Your task to perform on an android device: uninstall "Duolingo: language lessons" Image 0: 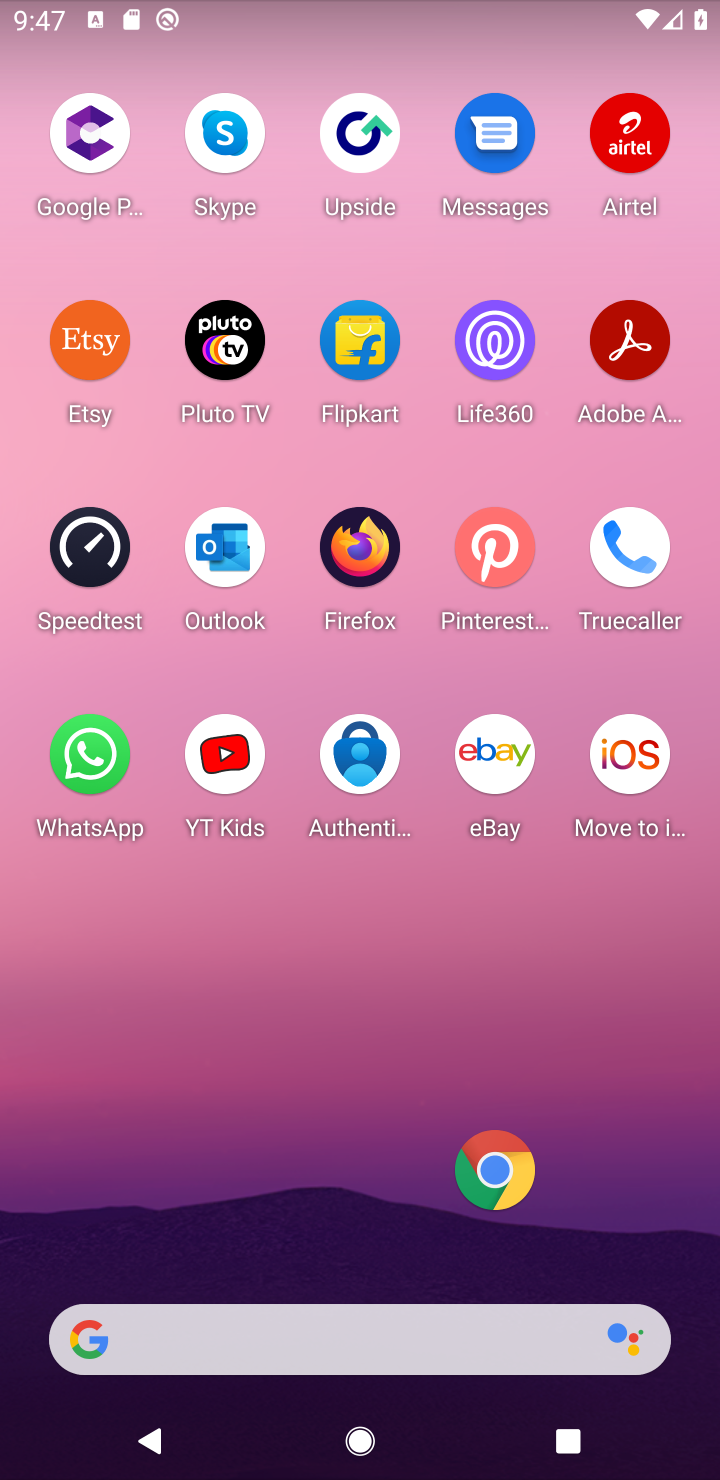
Step 0: drag from (430, 518) to (560, 71)
Your task to perform on an android device: uninstall "Duolingo: language lessons" Image 1: 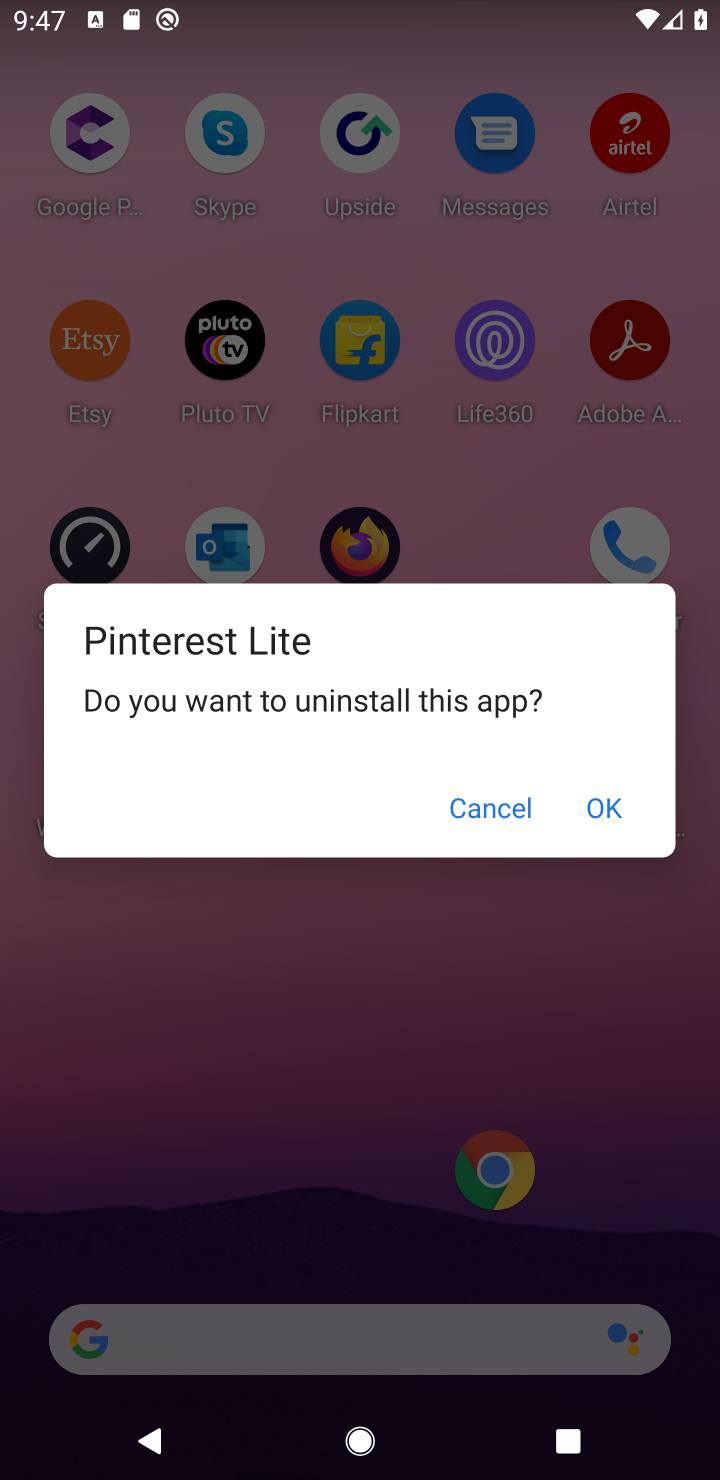
Step 1: click (431, 815)
Your task to perform on an android device: uninstall "Duolingo: language lessons" Image 2: 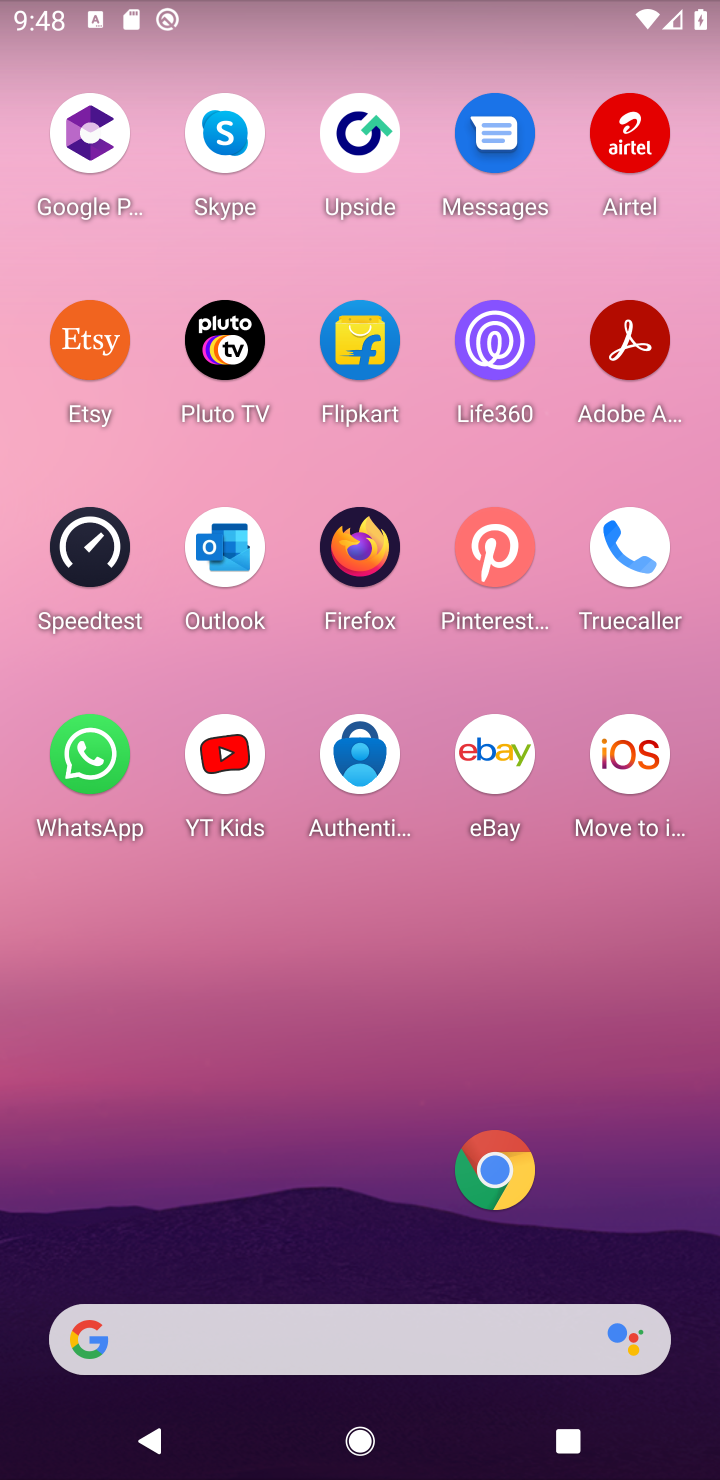
Step 2: drag from (311, 852) to (408, 15)
Your task to perform on an android device: uninstall "Duolingo: language lessons" Image 3: 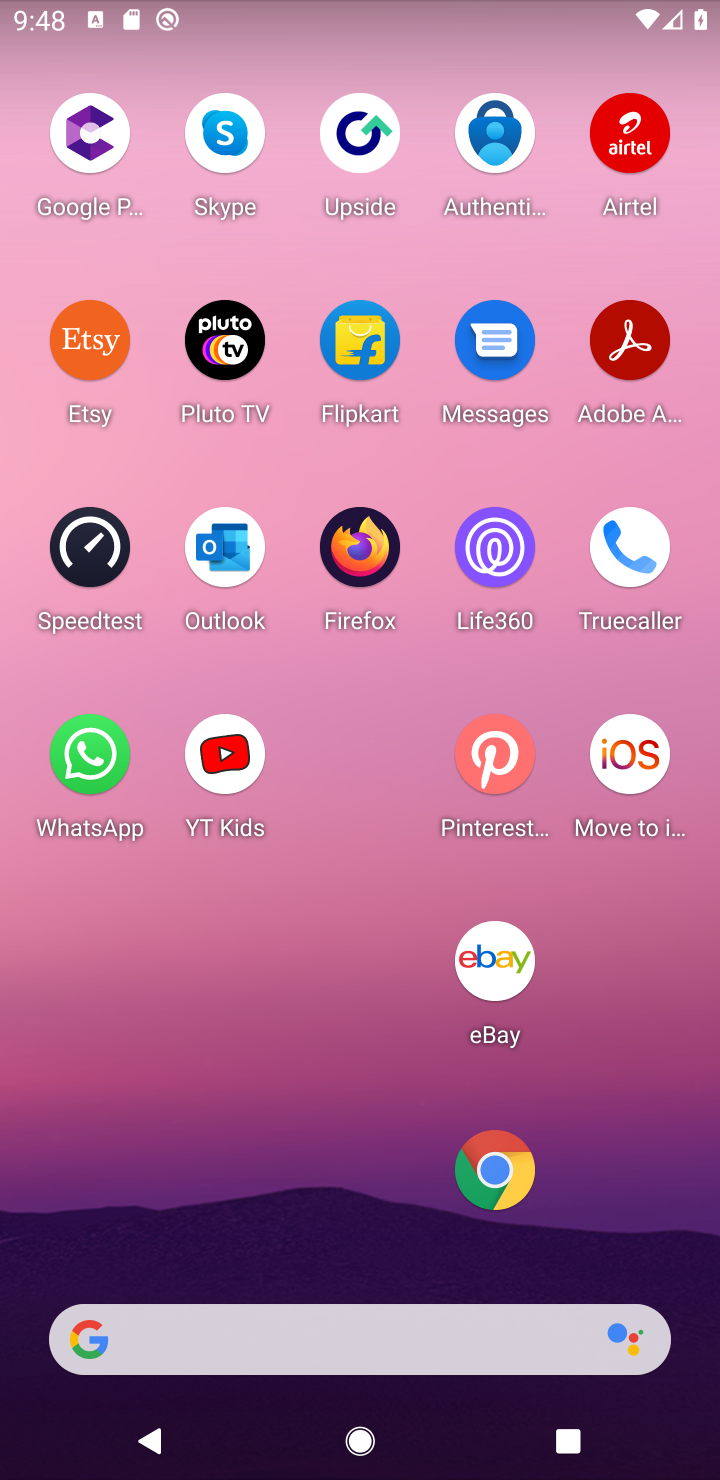
Step 3: click (22, 905)
Your task to perform on an android device: uninstall "Duolingo: language lessons" Image 4: 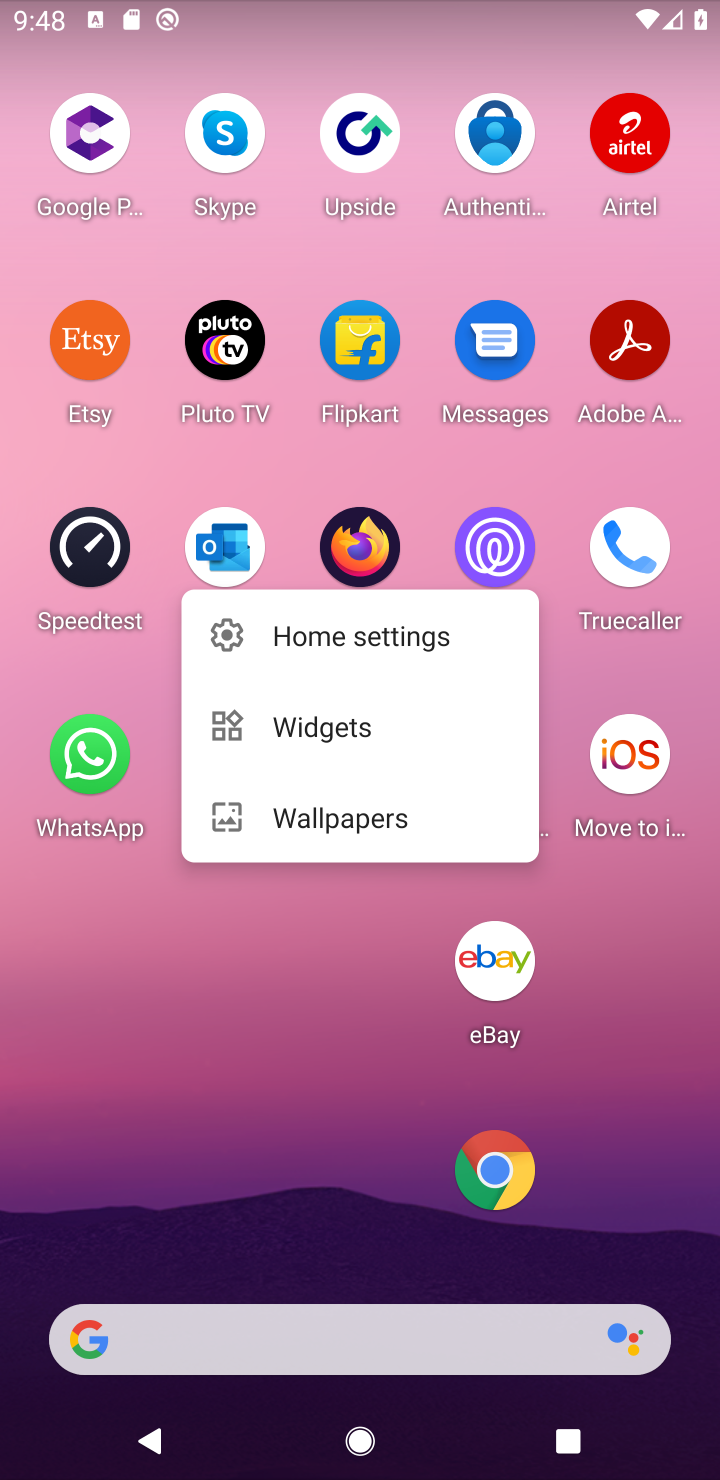
Step 4: drag from (464, 945) to (636, 909)
Your task to perform on an android device: uninstall "Duolingo: language lessons" Image 5: 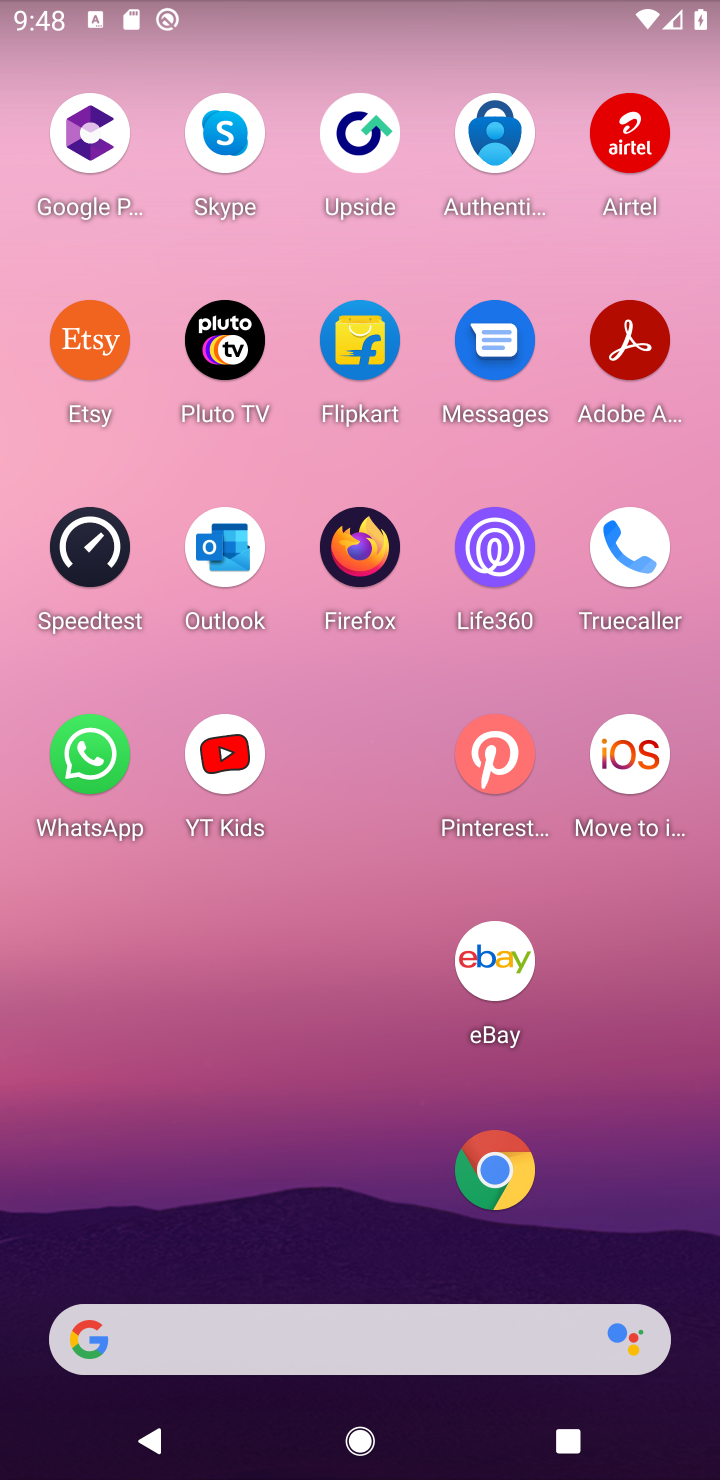
Step 5: drag from (241, 1158) to (357, 215)
Your task to perform on an android device: uninstall "Duolingo: language lessons" Image 6: 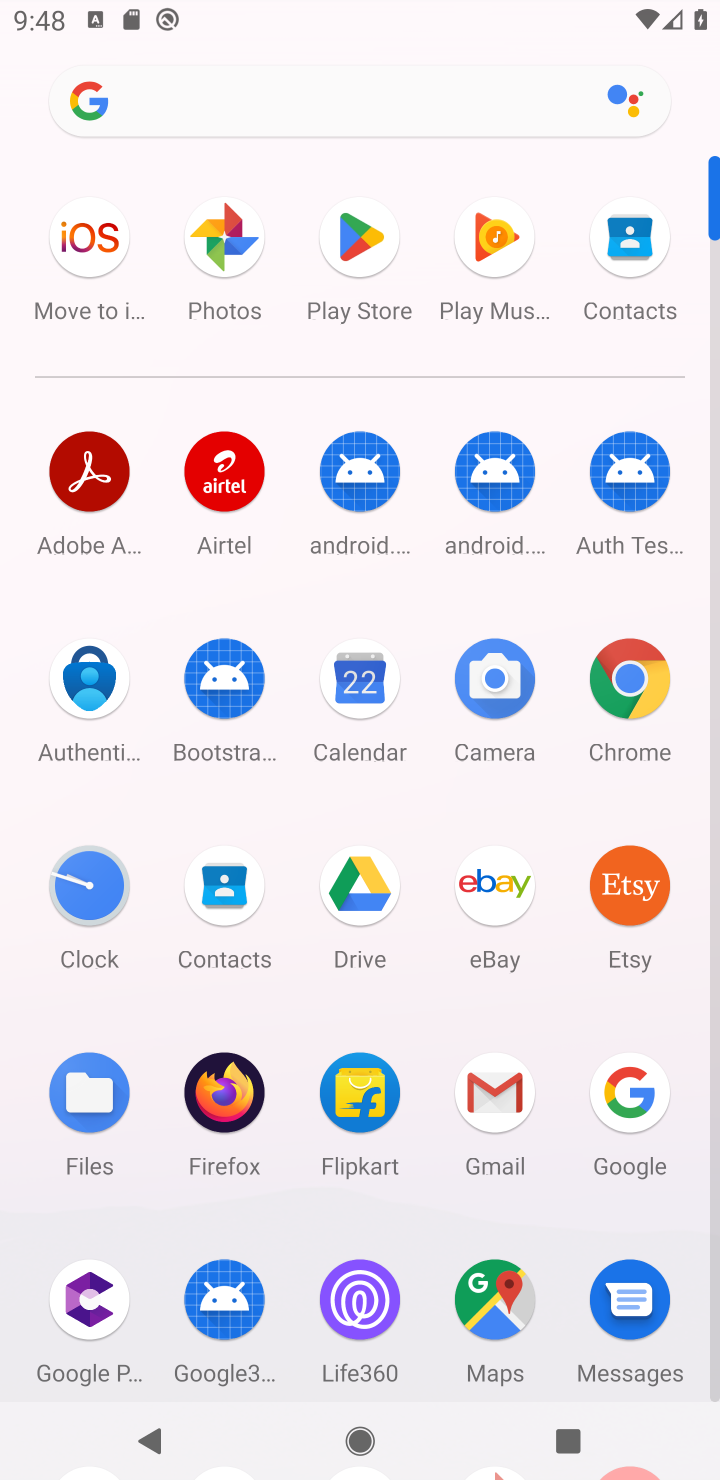
Step 6: click (362, 231)
Your task to perform on an android device: uninstall "Duolingo: language lessons" Image 7: 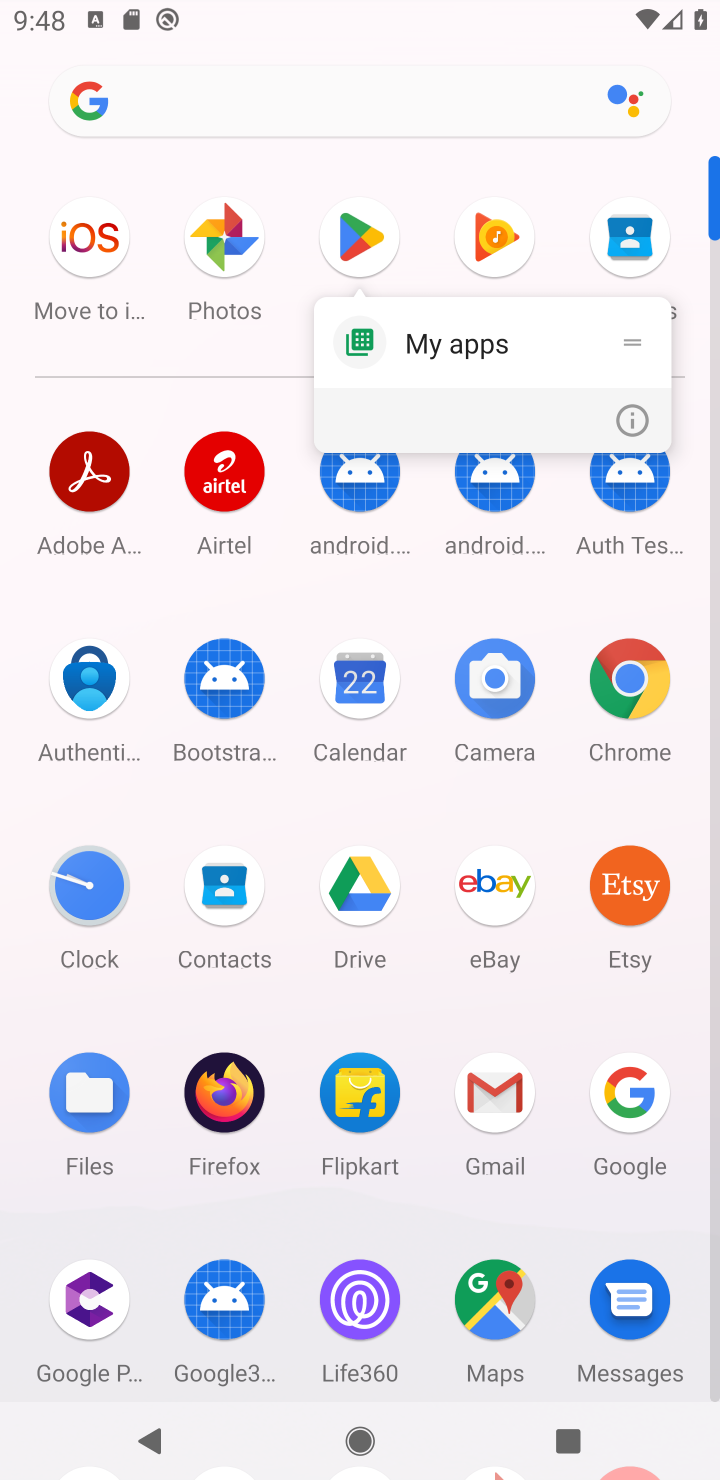
Step 7: click (360, 232)
Your task to perform on an android device: uninstall "Duolingo: language lessons" Image 8: 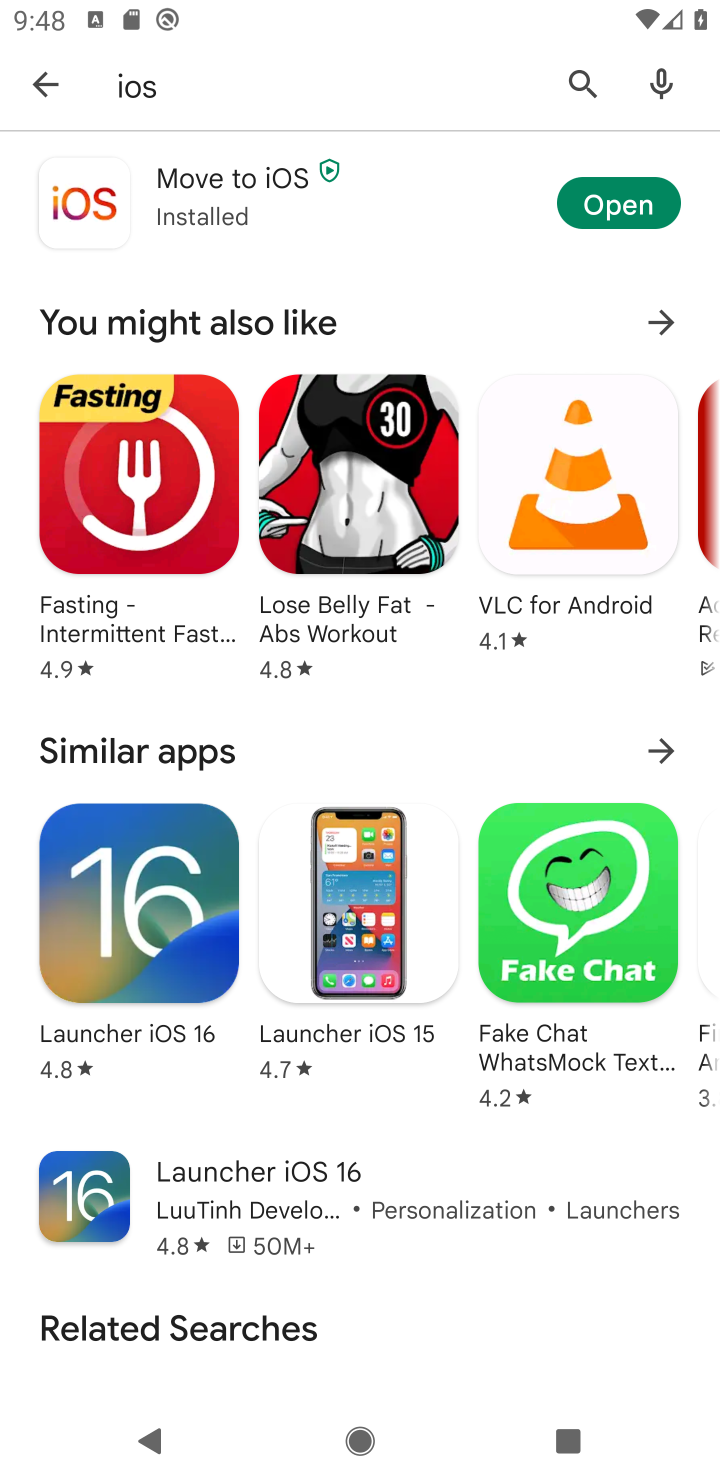
Step 8: click (576, 78)
Your task to perform on an android device: uninstall "Duolingo: language lessons" Image 9: 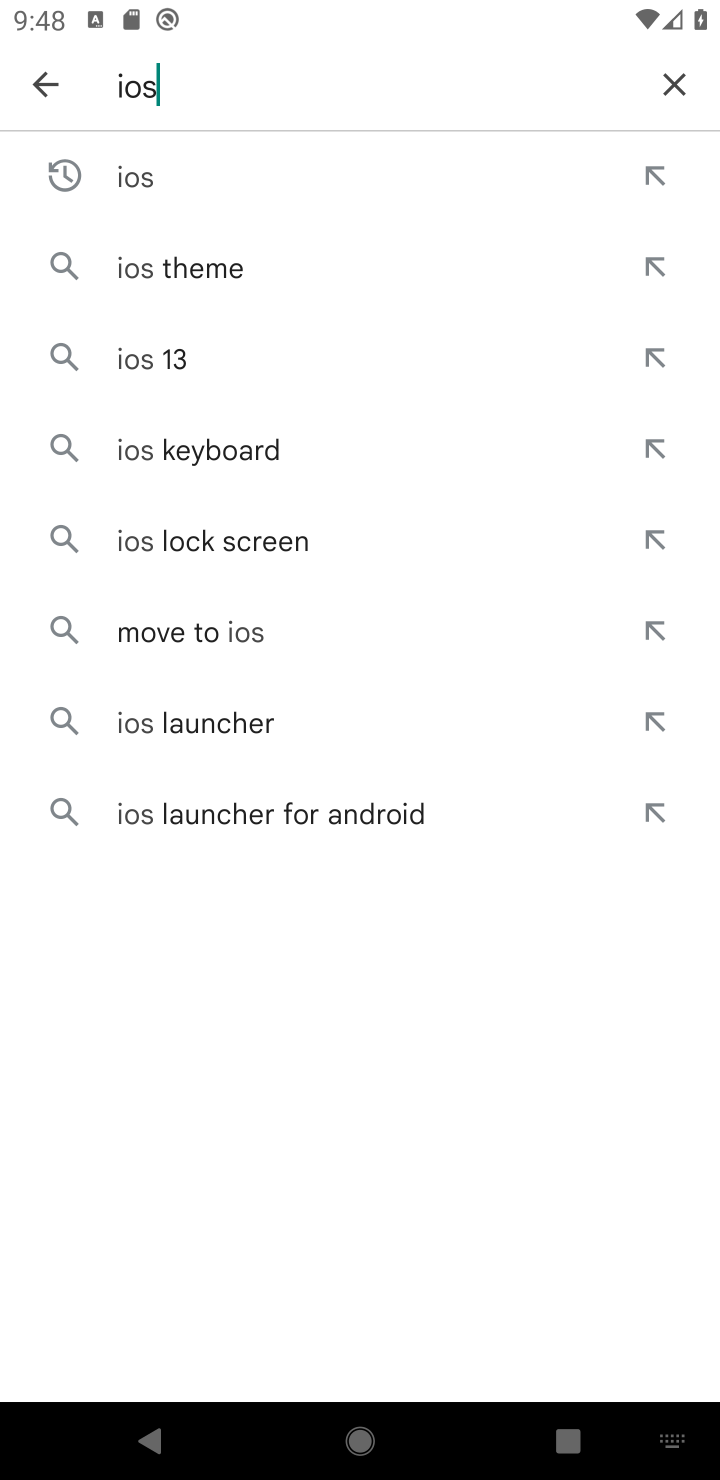
Step 9: click (659, 88)
Your task to perform on an android device: uninstall "Duolingo: language lessons" Image 10: 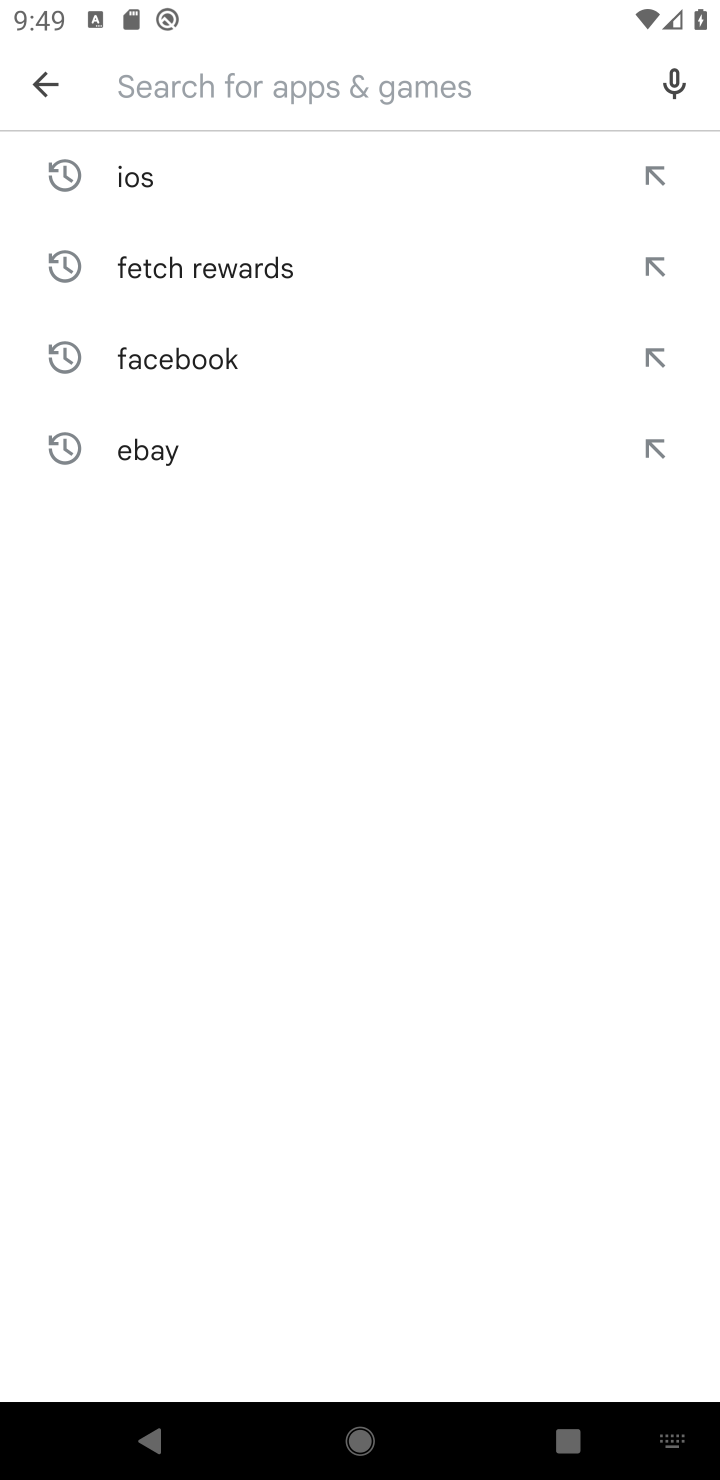
Step 10: click (293, 94)
Your task to perform on an android device: uninstall "Duolingo: language lessons" Image 11: 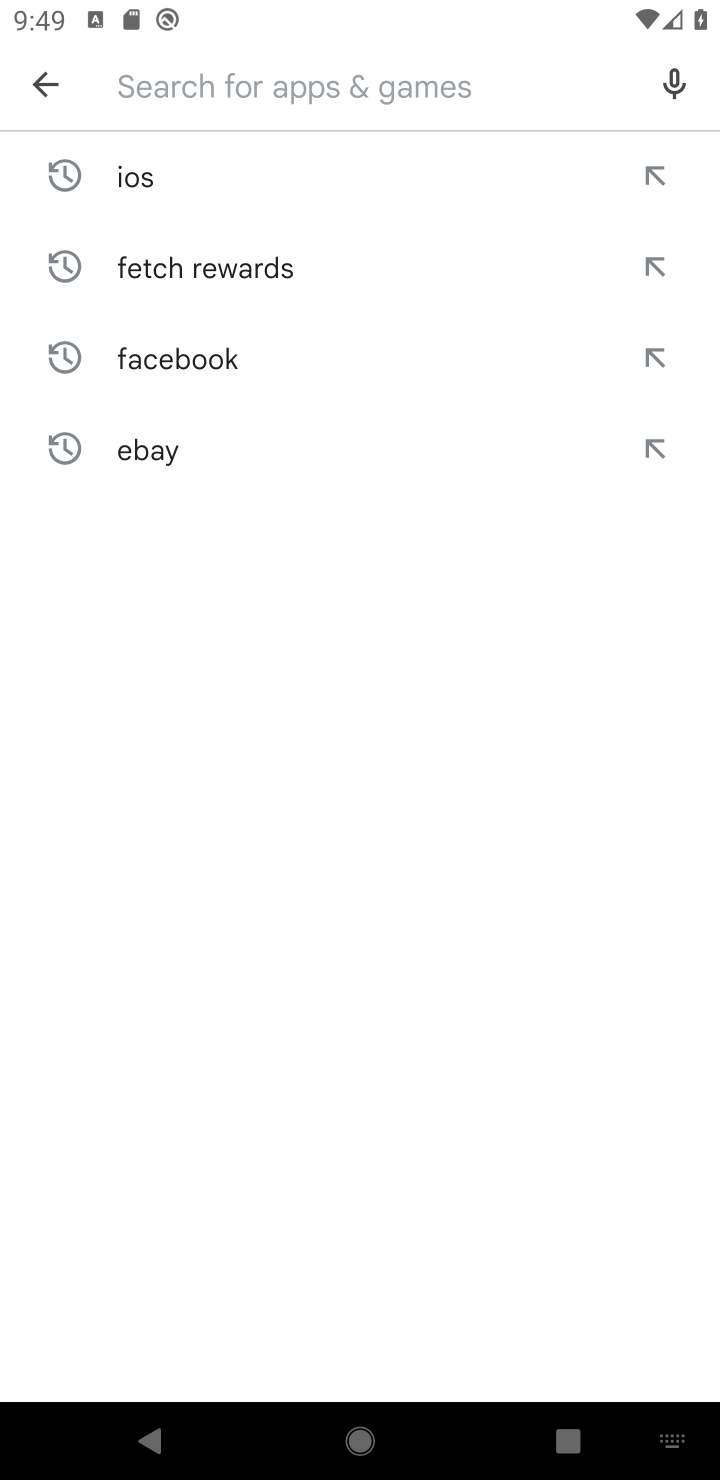
Step 11: type "Duolingo"
Your task to perform on an android device: uninstall "Duolingo: language lessons" Image 12: 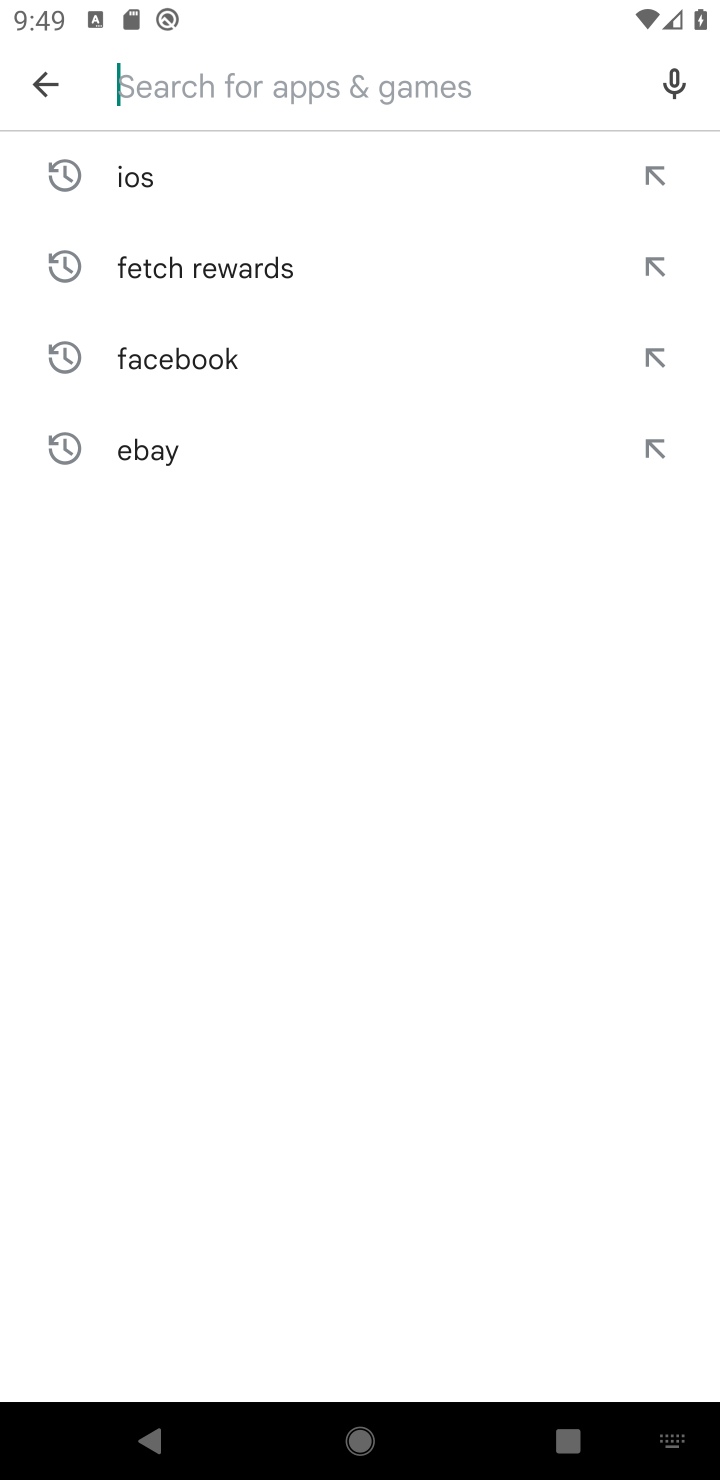
Step 12: click (507, 987)
Your task to perform on an android device: uninstall "Duolingo: language lessons" Image 13: 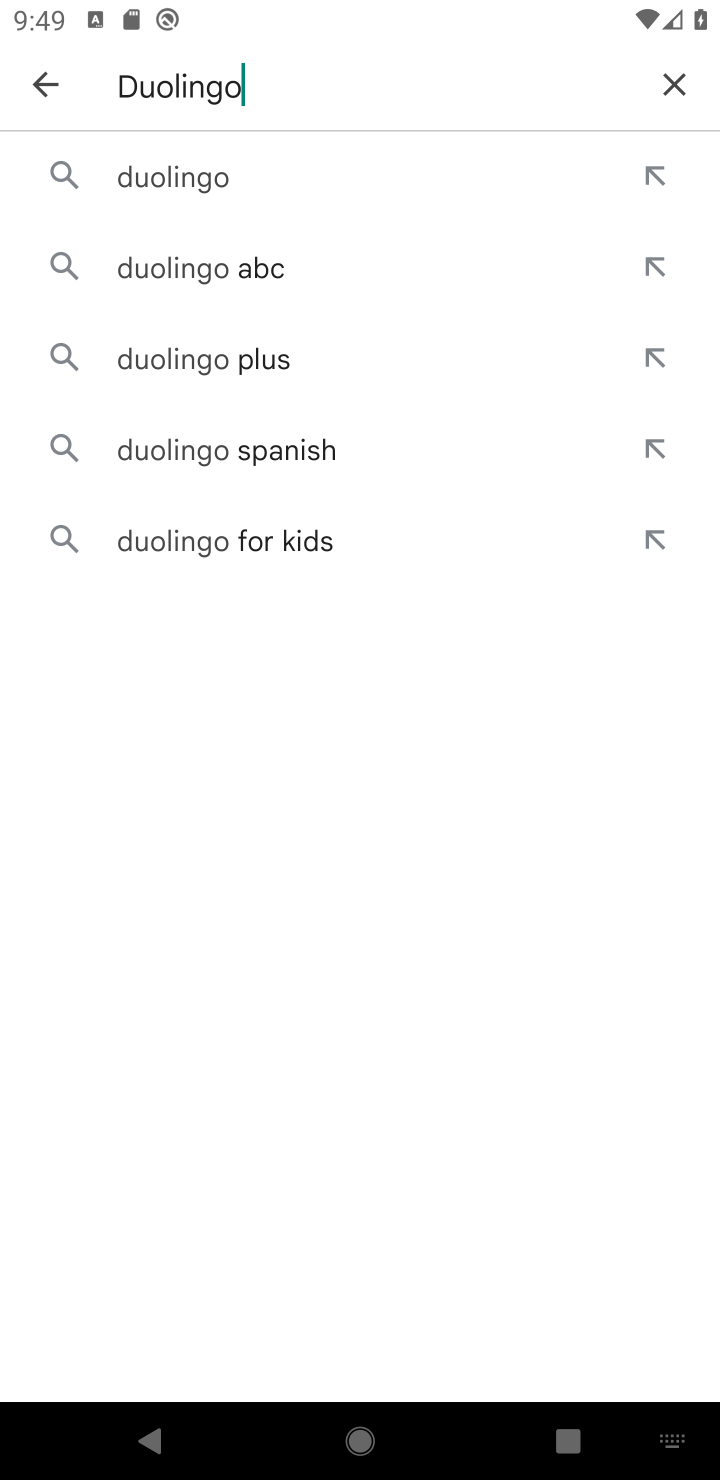
Step 13: click (186, 163)
Your task to perform on an android device: uninstall "Duolingo: language lessons" Image 14: 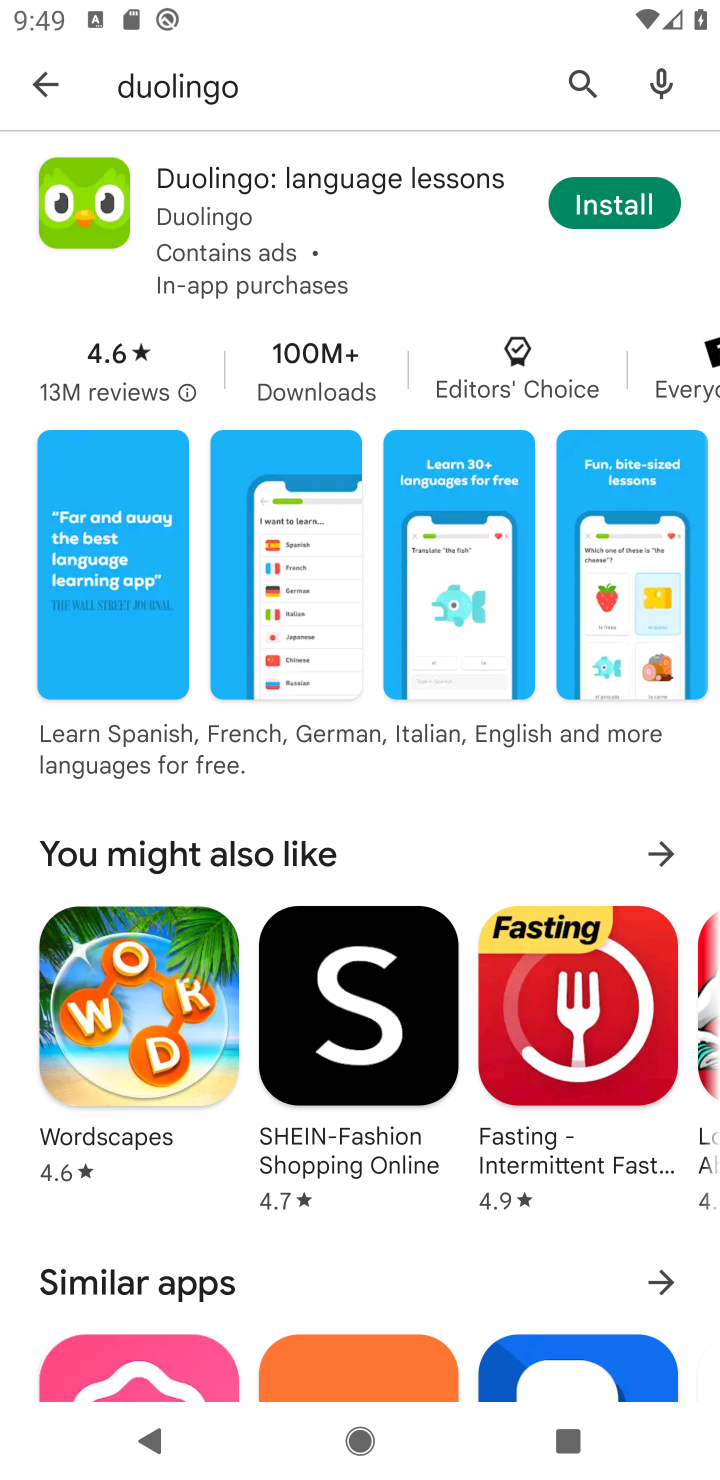
Step 14: click (238, 225)
Your task to perform on an android device: uninstall "Duolingo: language lessons" Image 15: 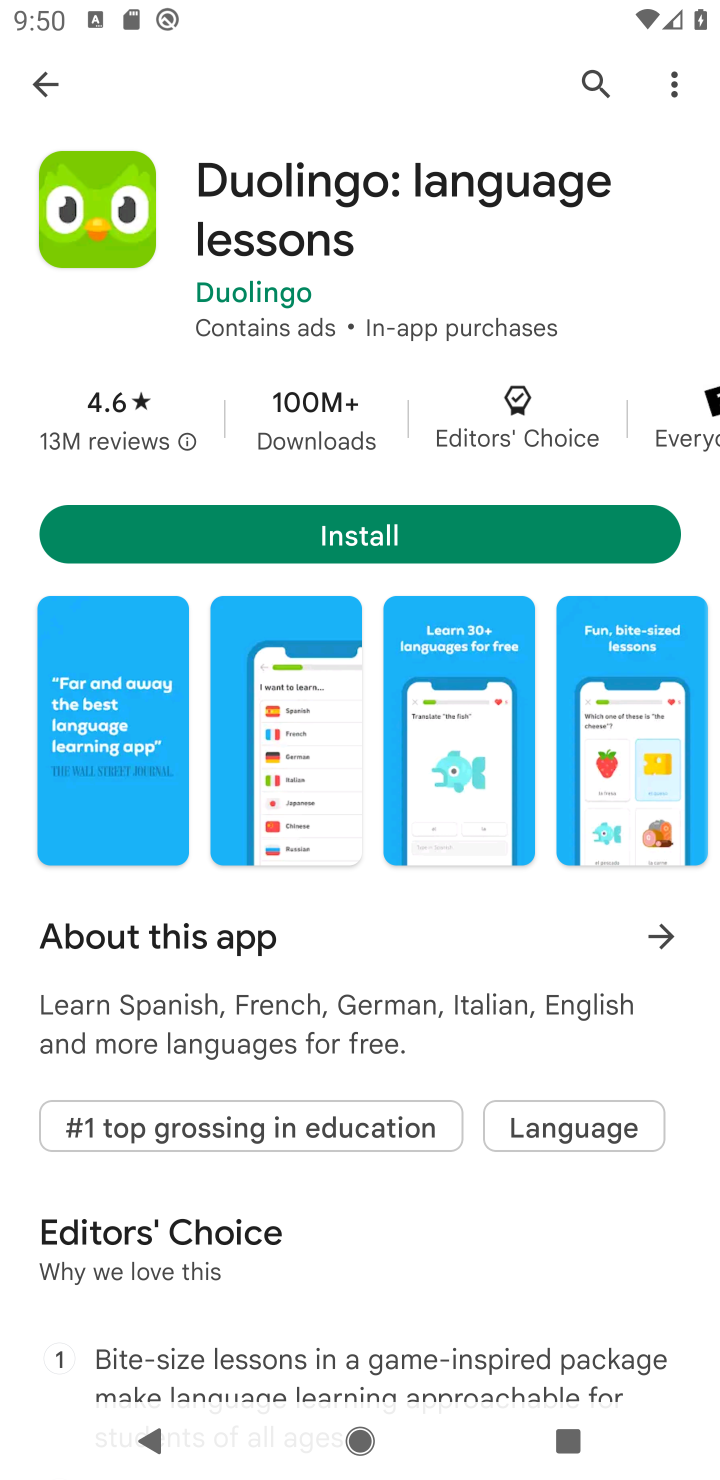
Step 15: task complete